Your task to perform on an android device: Open CNN.com Image 0: 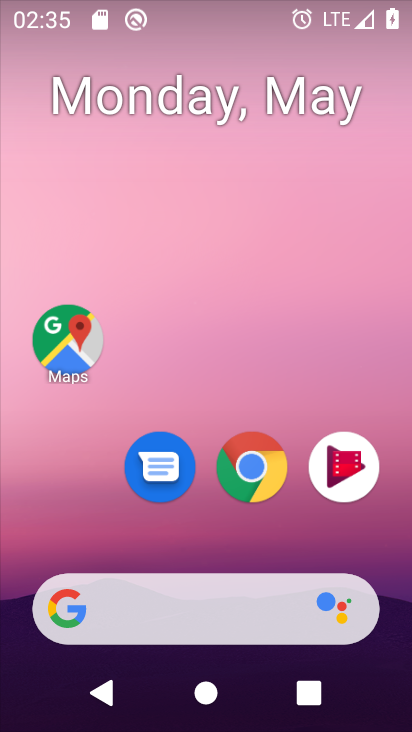
Step 0: click (232, 456)
Your task to perform on an android device: Open CNN.com Image 1: 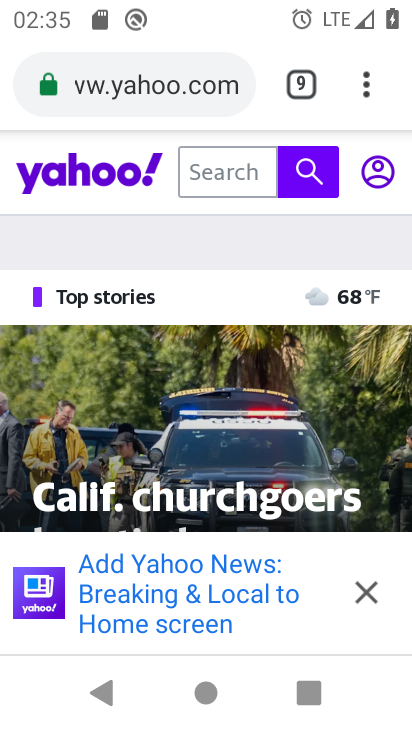
Step 1: click (352, 79)
Your task to perform on an android device: Open CNN.com Image 2: 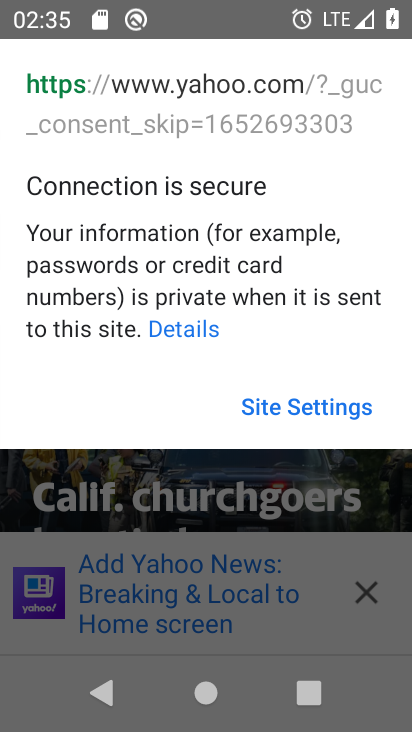
Step 2: press back button
Your task to perform on an android device: Open CNN.com Image 3: 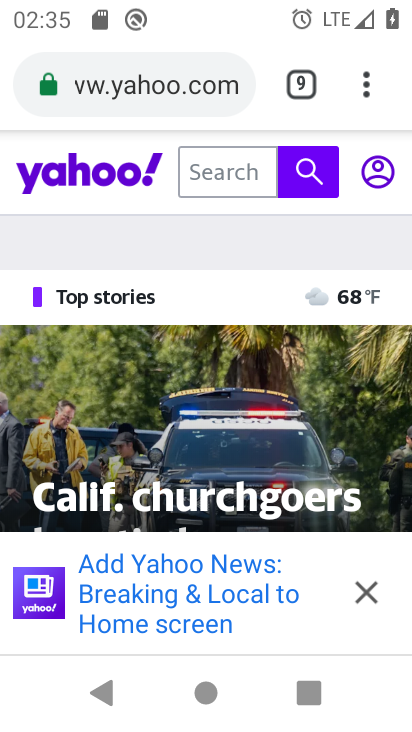
Step 3: click (341, 79)
Your task to perform on an android device: Open CNN.com Image 4: 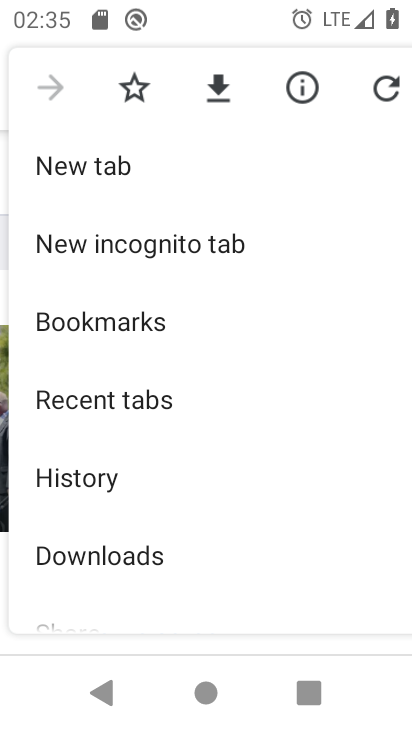
Step 4: click (92, 180)
Your task to perform on an android device: Open CNN.com Image 5: 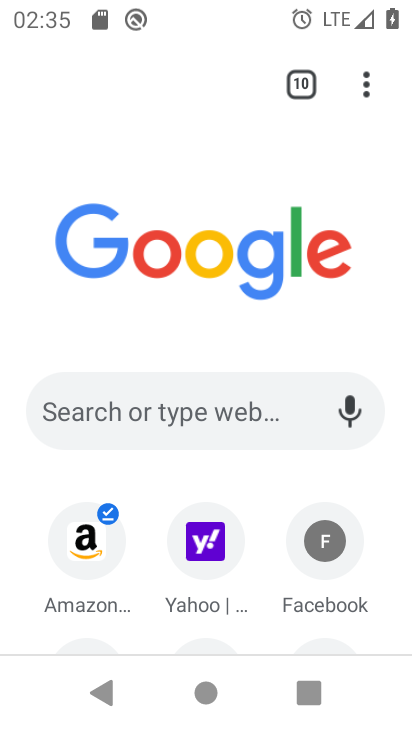
Step 5: click (186, 398)
Your task to perform on an android device: Open CNN.com Image 6: 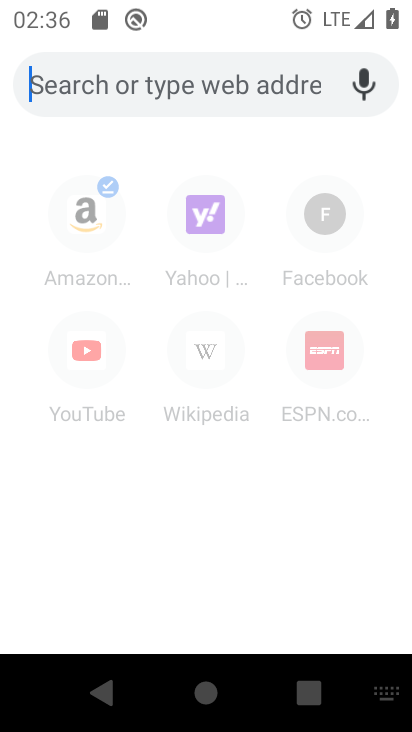
Step 6: type " CNN.com"
Your task to perform on an android device: Open CNN.com Image 7: 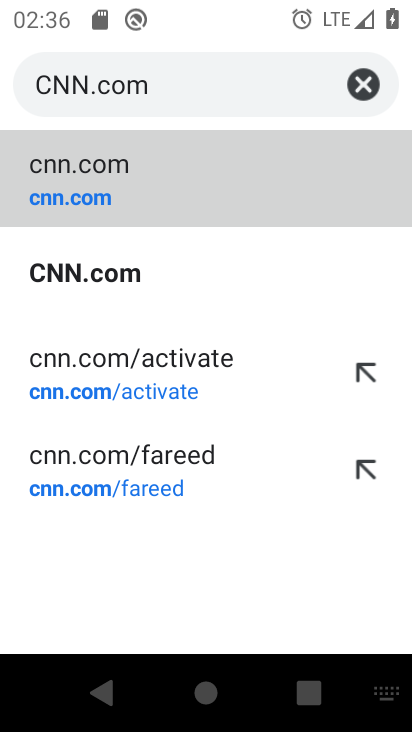
Step 7: click (194, 173)
Your task to perform on an android device: Open CNN.com Image 8: 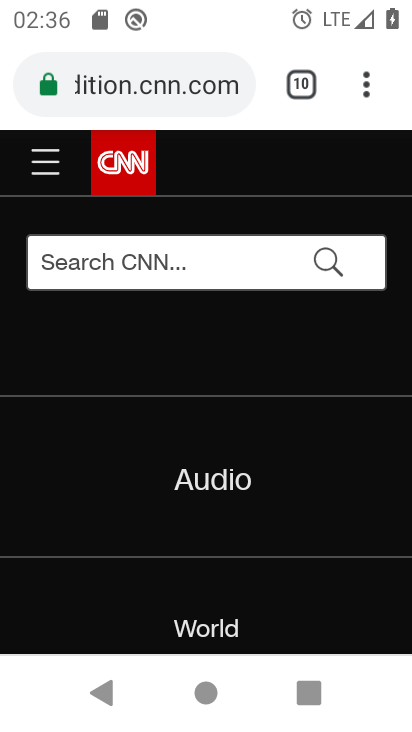
Step 8: task complete